Your task to perform on an android device: What's on my calendar today? Image 0: 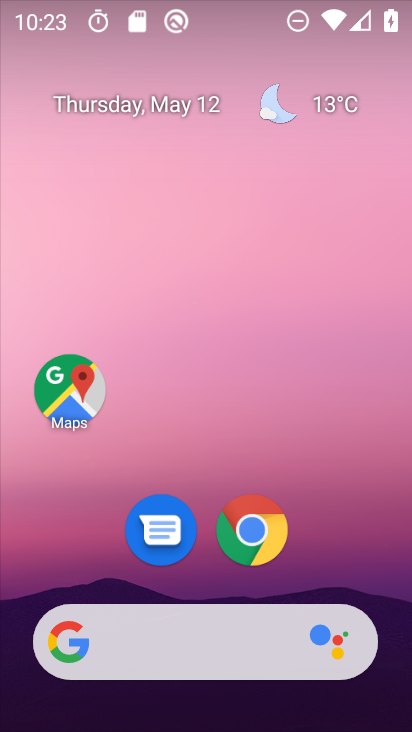
Step 0: drag from (338, 539) to (343, 198)
Your task to perform on an android device: What's on my calendar today? Image 1: 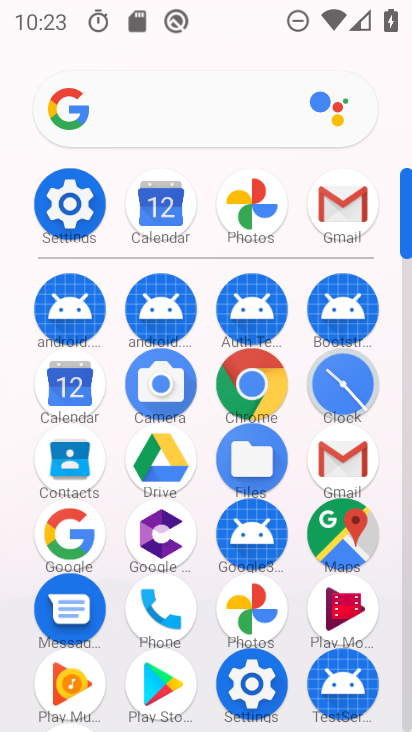
Step 1: click (155, 199)
Your task to perform on an android device: What's on my calendar today? Image 2: 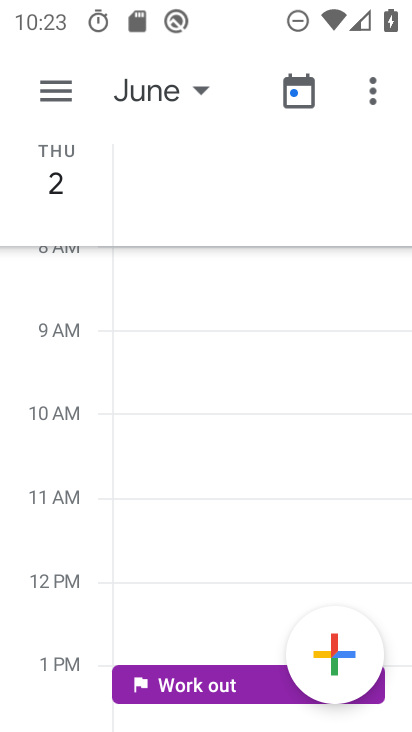
Step 2: click (56, 86)
Your task to perform on an android device: What's on my calendar today? Image 3: 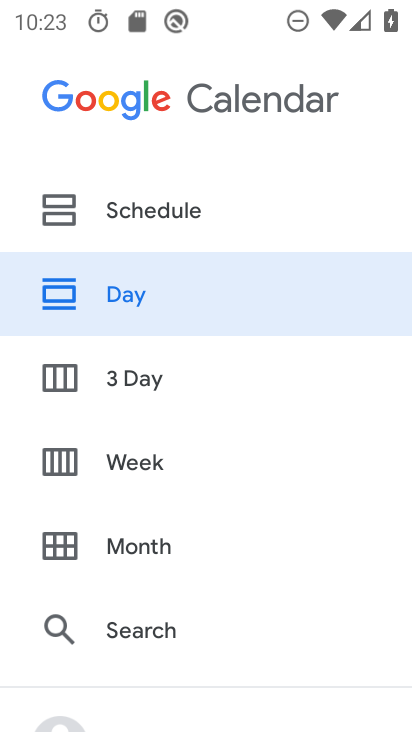
Step 3: click (198, 300)
Your task to perform on an android device: What's on my calendar today? Image 4: 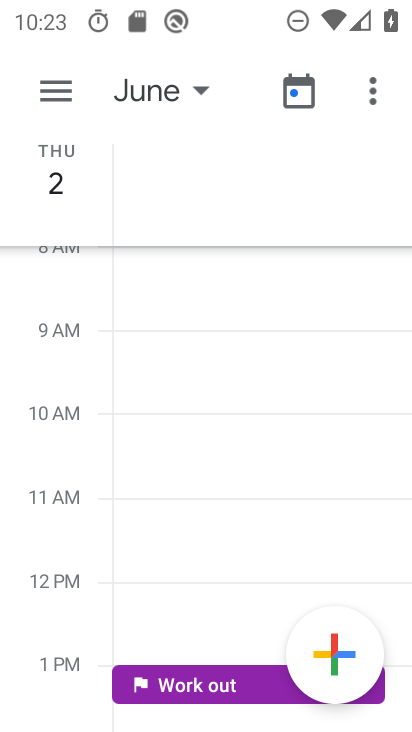
Step 4: drag from (215, 298) to (176, 554)
Your task to perform on an android device: What's on my calendar today? Image 5: 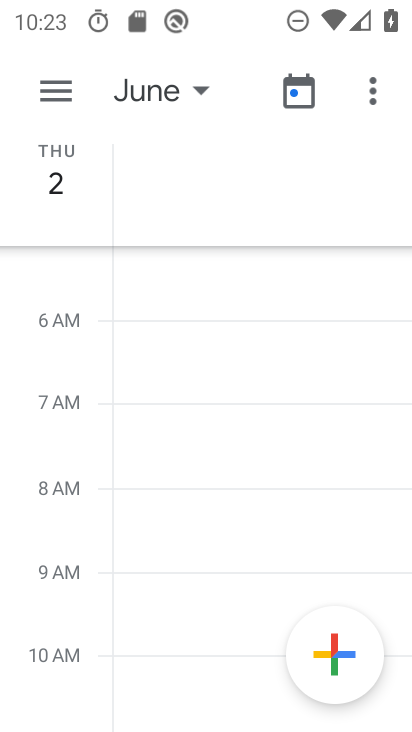
Step 5: click (210, 512)
Your task to perform on an android device: What's on my calendar today? Image 6: 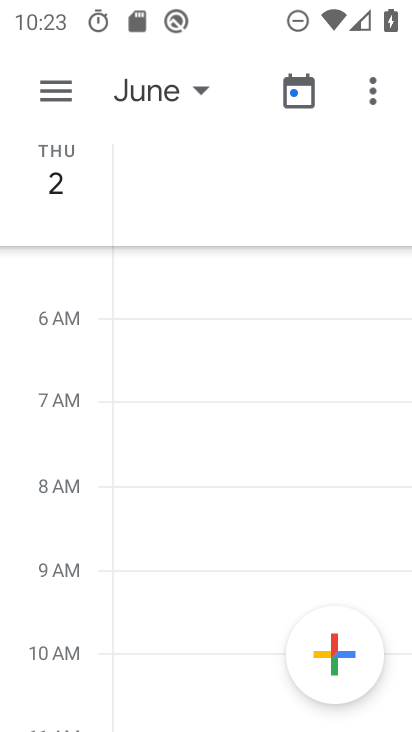
Step 6: click (168, 89)
Your task to perform on an android device: What's on my calendar today? Image 7: 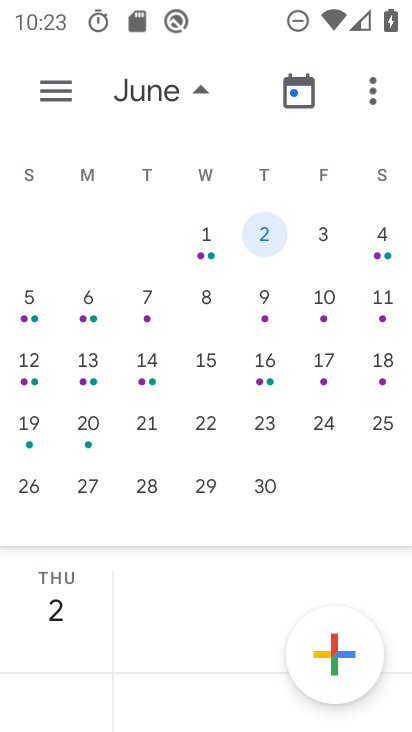
Step 7: drag from (188, 261) to (411, 277)
Your task to perform on an android device: What's on my calendar today? Image 8: 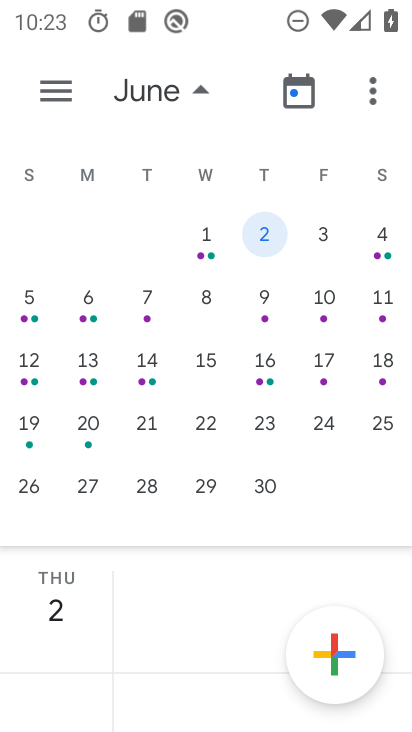
Step 8: drag from (91, 198) to (402, 222)
Your task to perform on an android device: What's on my calendar today? Image 9: 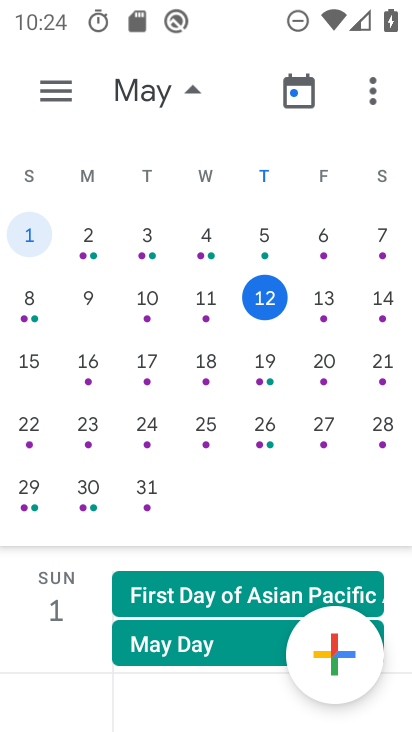
Step 9: click (326, 301)
Your task to perform on an android device: What's on my calendar today? Image 10: 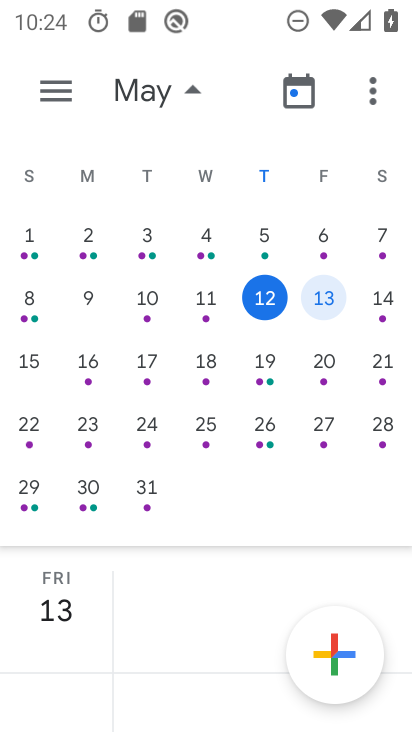
Step 10: drag from (148, 589) to (160, 231)
Your task to perform on an android device: What's on my calendar today? Image 11: 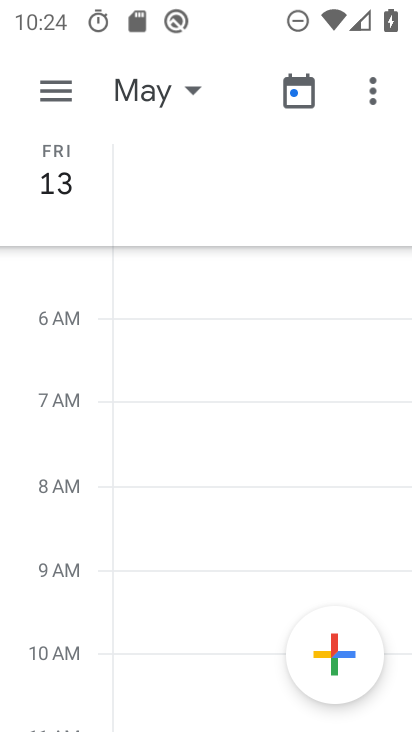
Step 11: drag from (134, 656) to (194, 313)
Your task to perform on an android device: What's on my calendar today? Image 12: 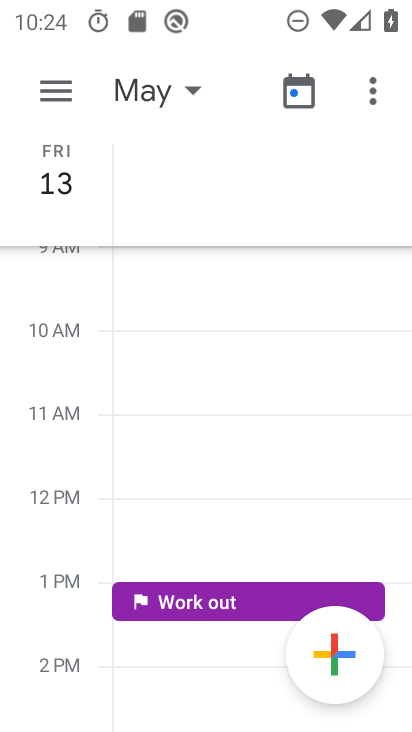
Step 12: click (51, 89)
Your task to perform on an android device: What's on my calendar today? Image 13: 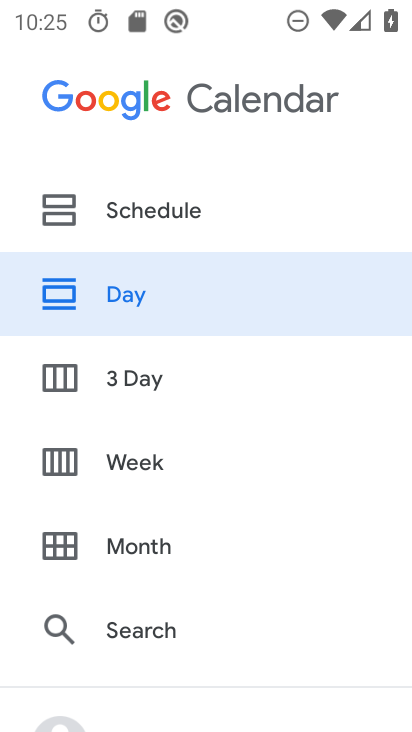
Step 13: click (87, 219)
Your task to perform on an android device: What's on my calendar today? Image 14: 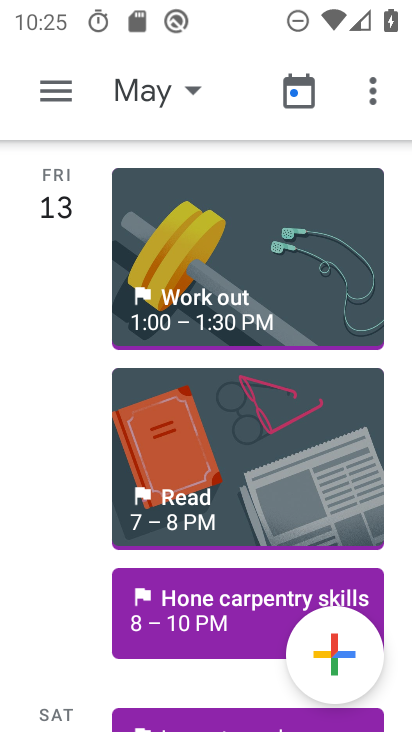
Step 14: task complete